Your task to perform on an android device: add a contact Image 0: 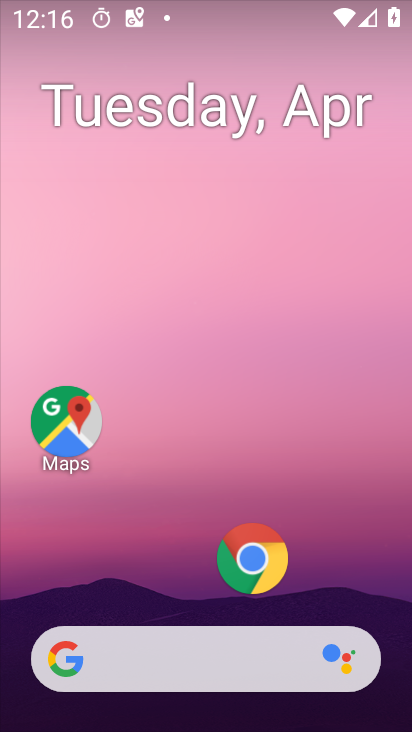
Step 0: drag from (204, 287) to (206, 219)
Your task to perform on an android device: add a contact Image 1: 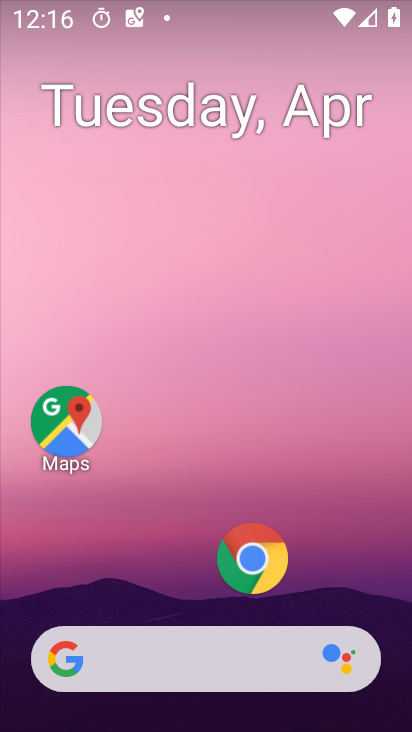
Step 1: drag from (127, 612) to (191, 187)
Your task to perform on an android device: add a contact Image 2: 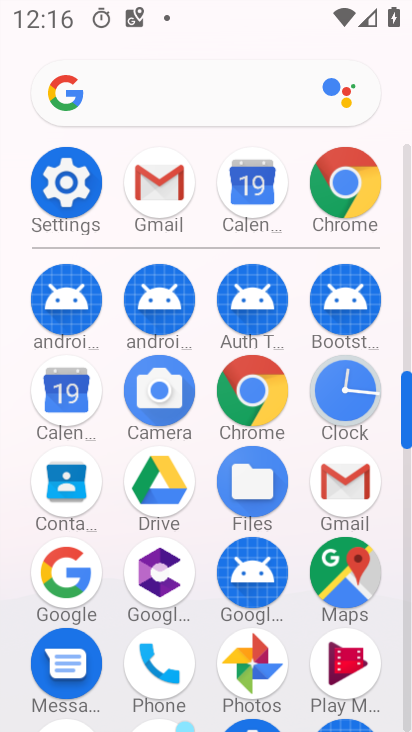
Step 2: click (59, 494)
Your task to perform on an android device: add a contact Image 3: 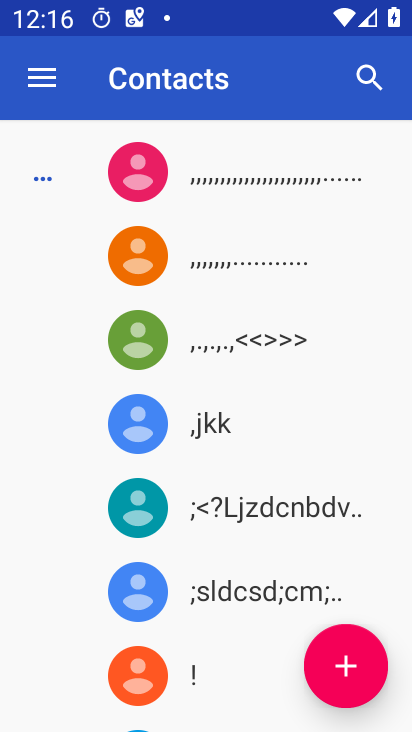
Step 3: drag from (263, 602) to (268, 195)
Your task to perform on an android device: add a contact Image 4: 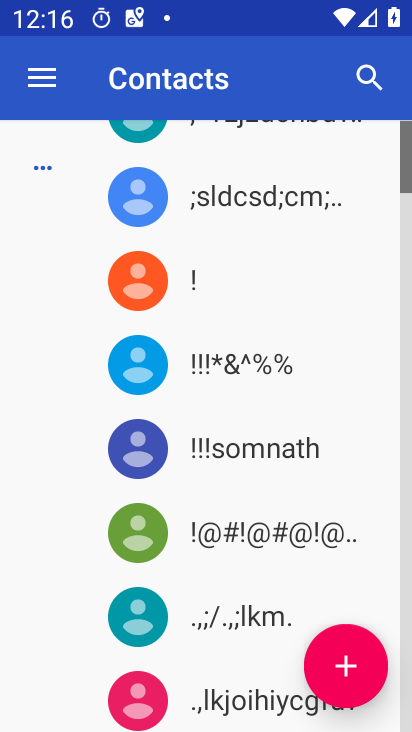
Step 4: drag from (202, 618) to (235, 251)
Your task to perform on an android device: add a contact Image 5: 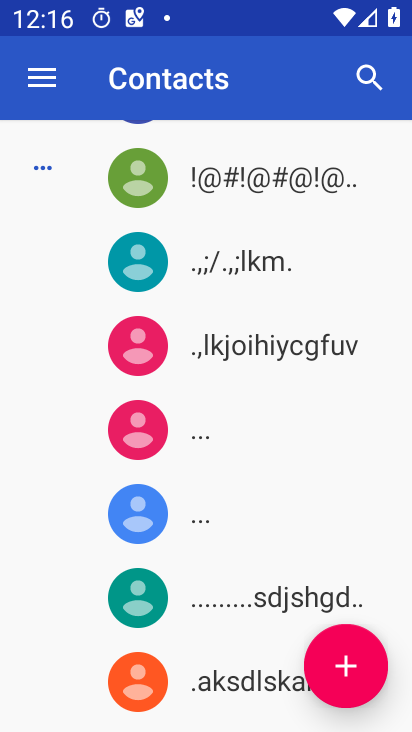
Step 5: click (346, 670)
Your task to perform on an android device: add a contact Image 6: 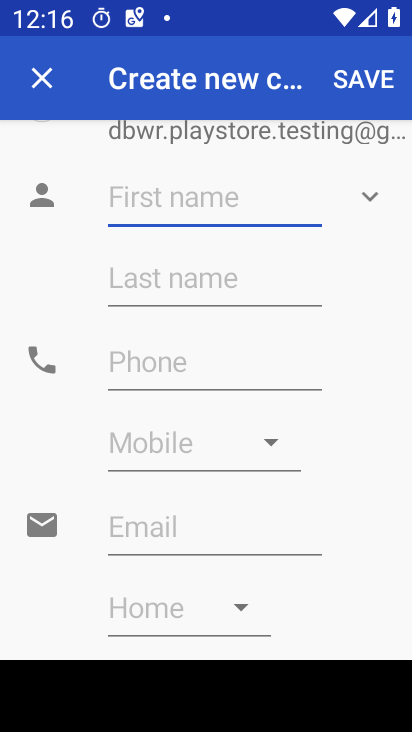
Step 6: type "mani"
Your task to perform on an android device: add a contact Image 7: 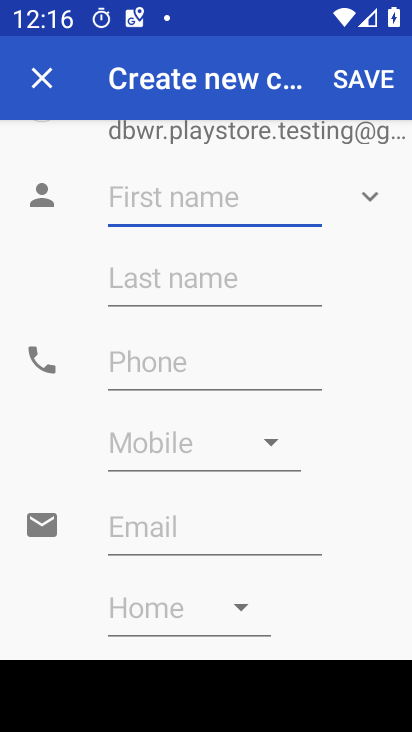
Step 7: click (199, 293)
Your task to perform on an android device: add a contact Image 8: 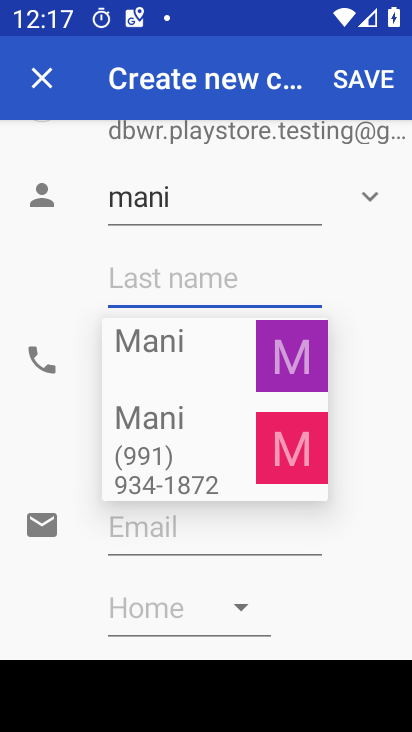
Step 8: type "m"
Your task to perform on an android device: add a contact Image 9: 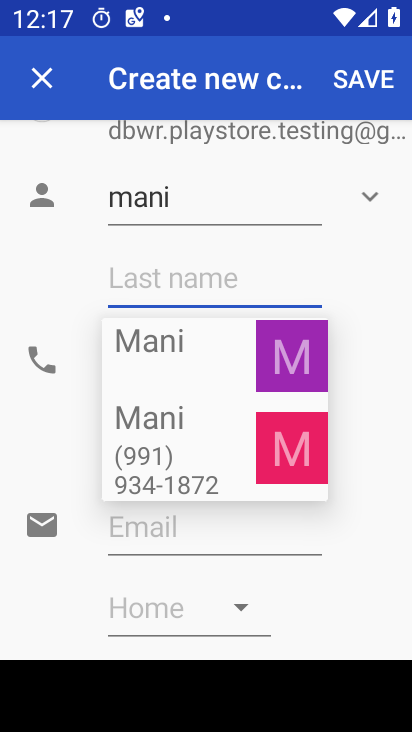
Step 9: click (177, 517)
Your task to perform on an android device: add a contact Image 10: 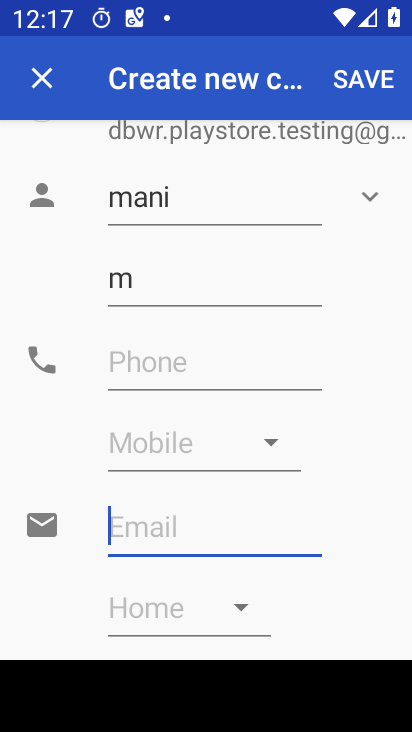
Step 10: click (167, 443)
Your task to perform on an android device: add a contact Image 11: 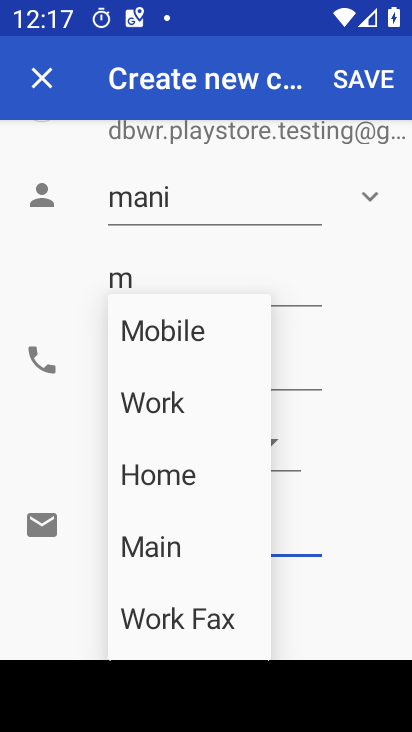
Step 11: click (289, 375)
Your task to perform on an android device: add a contact Image 12: 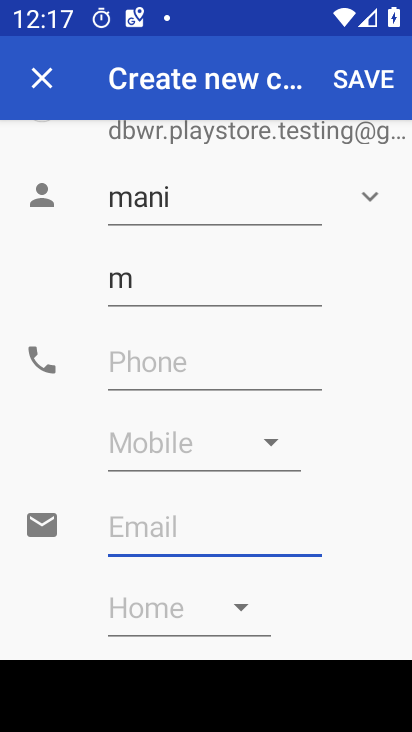
Step 12: click (215, 377)
Your task to perform on an android device: add a contact Image 13: 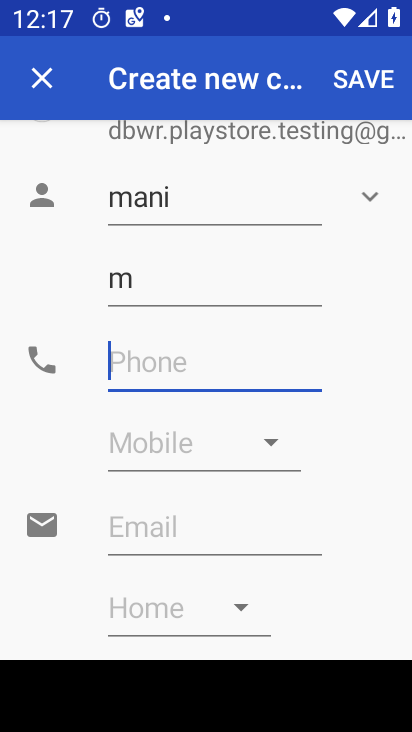
Step 13: type "3444"
Your task to perform on an android device: add a contact Image 14: 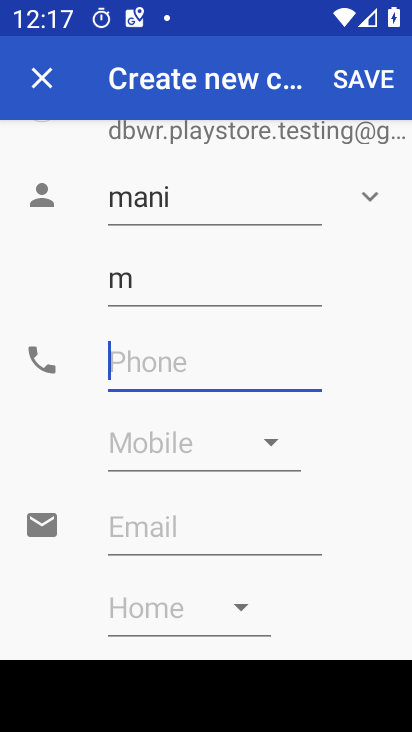
Step 14: click (375, 83)
Your task to perform on an android device: add a contact Image 15: 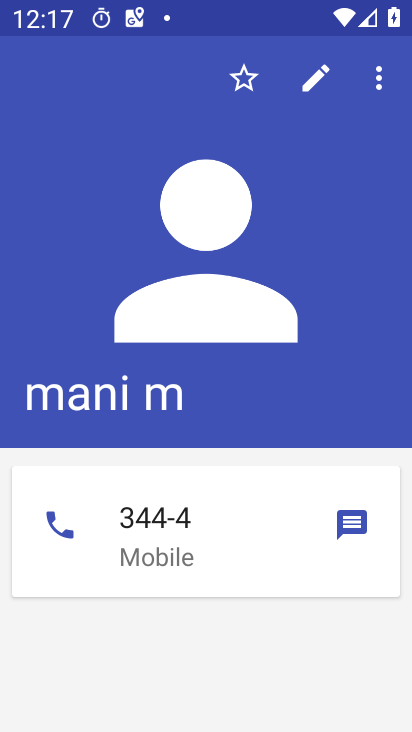
Step 15: task complete